Your task to perform on an android device: turn on translation in the chrome app Image 0: 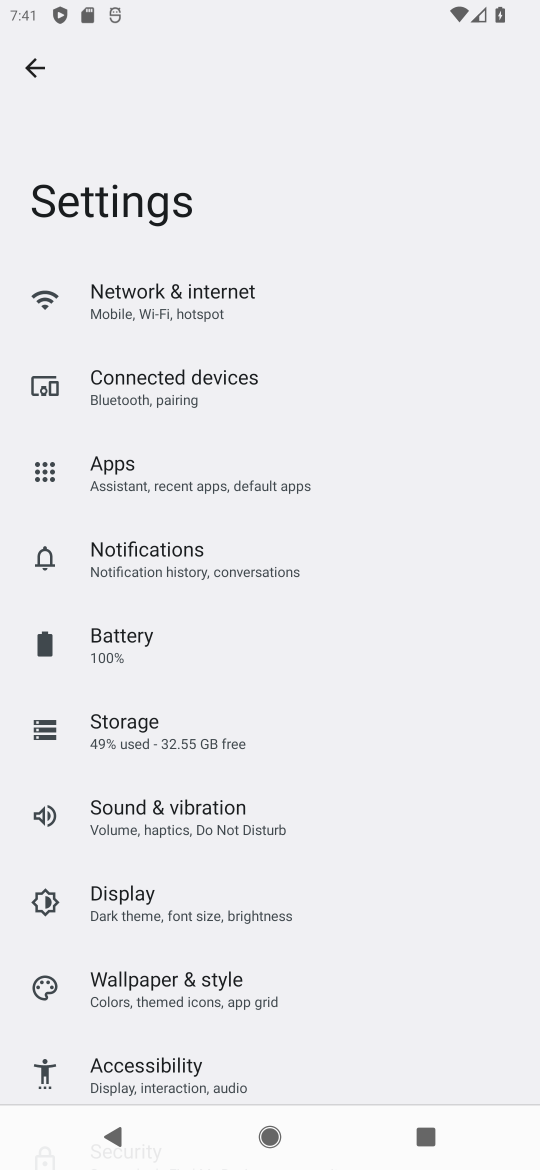
Step 0: press home button
Your task to perform on an android device: turn on translation in the chrome app Image 1: 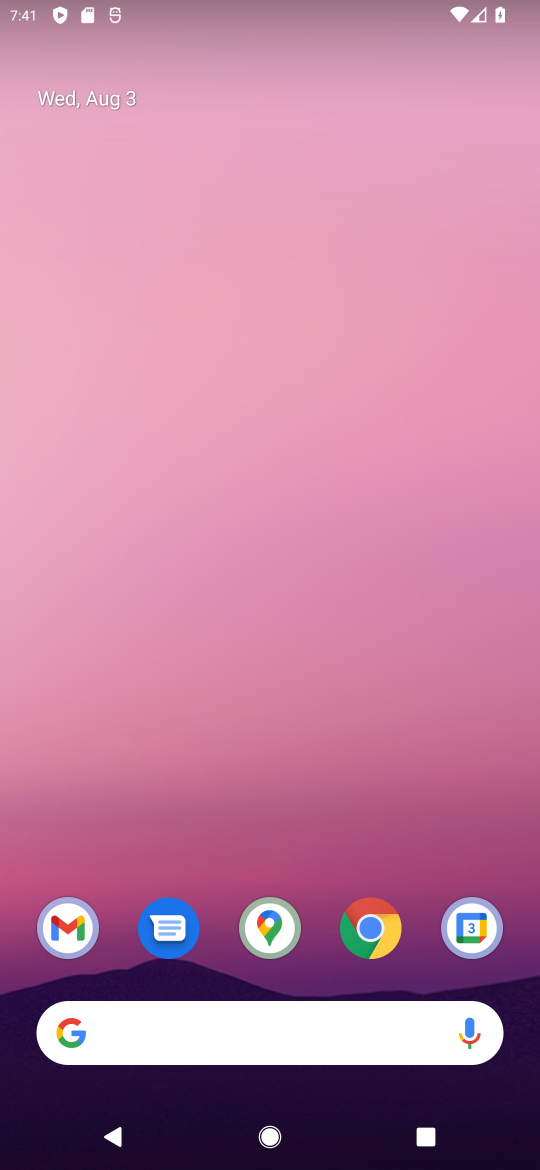
Step 1: click (381, 945)
Your task to perform on an android device: turn on translation in the chrome app Image 2: 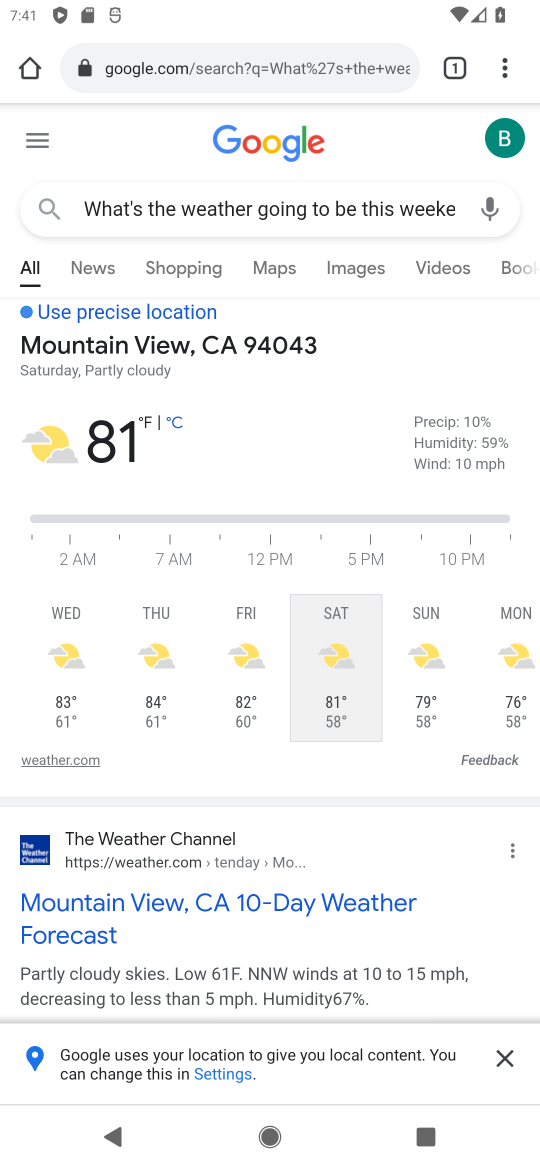
Step 2: click (493, 64)
Your task to perform on an android device: turn on translation in the chrome app Image 3: 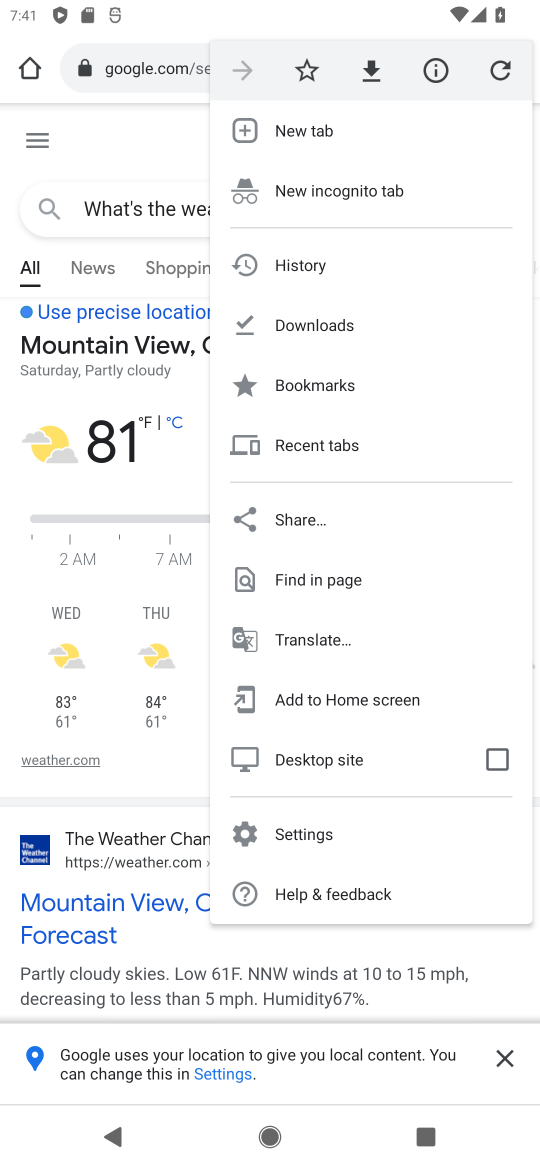
Step 3: click (353, 828)
Your task to perform on an android device: turn on translation in the chrome app Image 4: 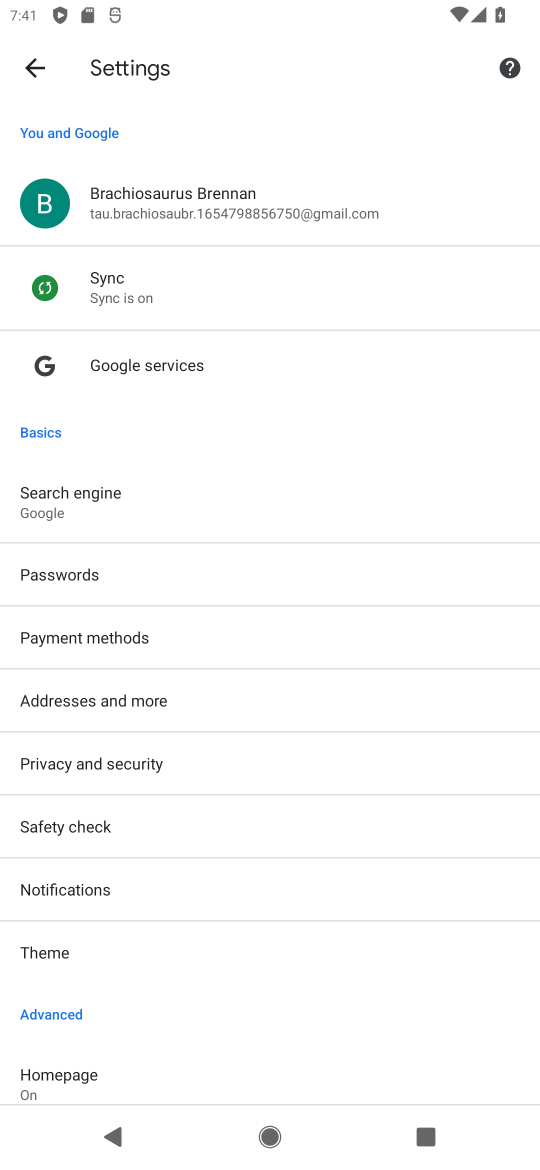
Step 4: drag from (308, 1064) to (228, 363)
Your task to perform on an android device: turn on translation in the chrome app Image 5: 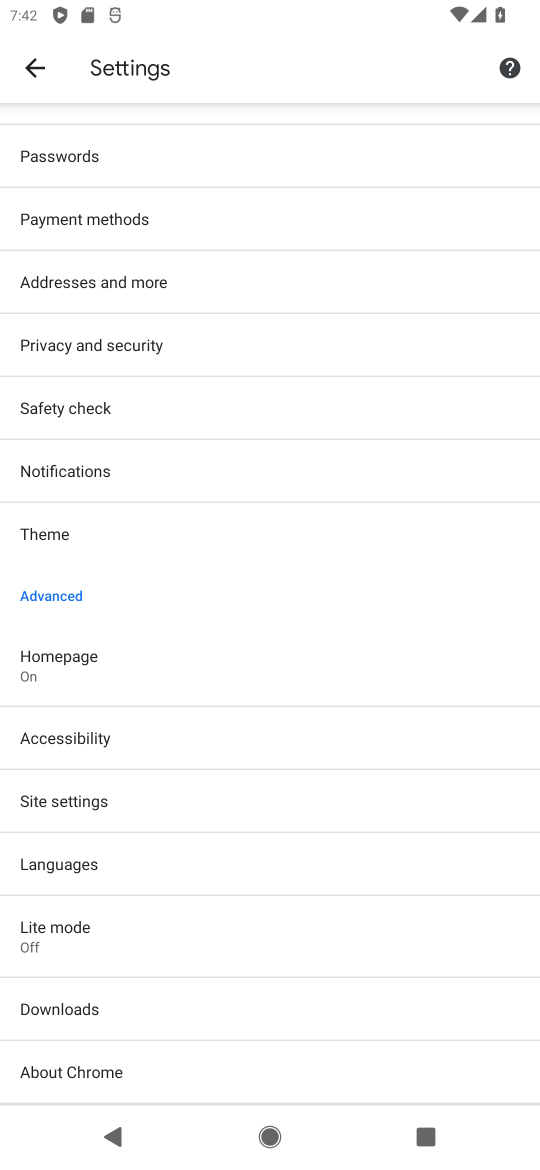
Step 5: click (175, 866)
Your task to perform on an android device: turn on translation in the chrome app Image 6: 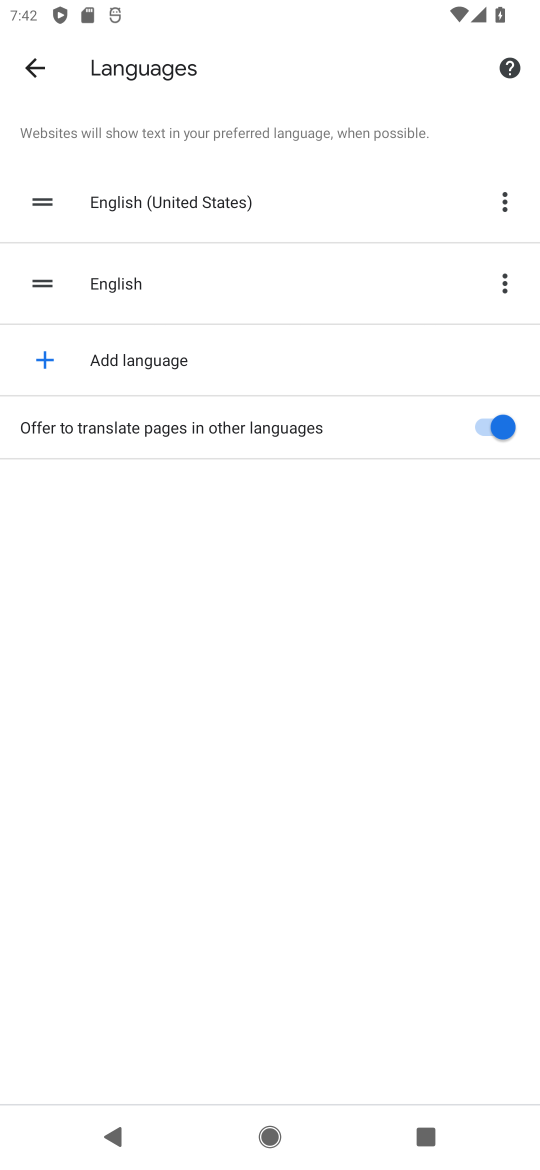
Step 6: task complete